Your task to perform on an android device: When is my next appointment? Image 0: 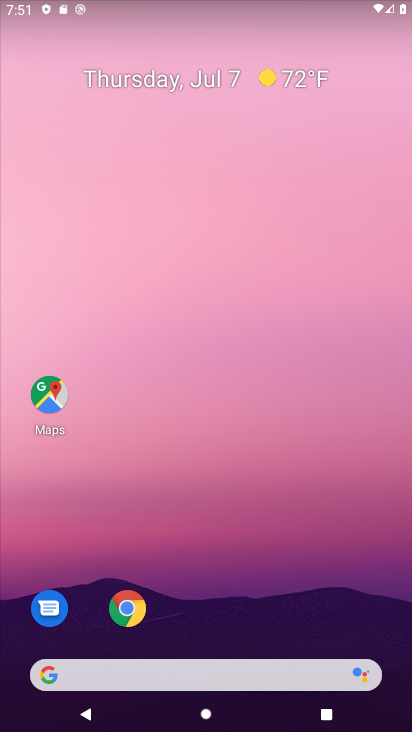
Step 0: drag from (383, 710) to (352, 196)
Your task to perform on an android device: When is my next appointment? Image 1: 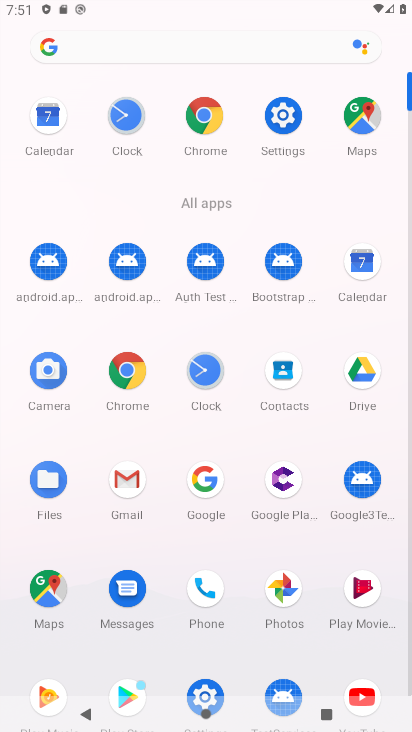
Step 1: click (377, 268)
Your task to perform on an android device: When is my next appointment? Image 2: 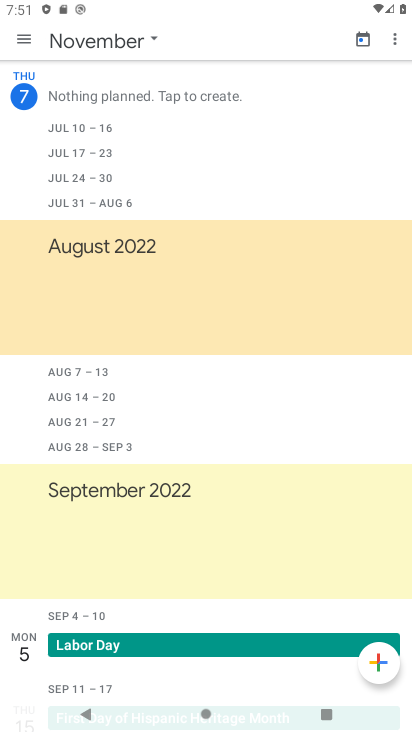
Step 2: click (23, 37)
Your task to perform on an android device: When is my next appointment? Image 3: 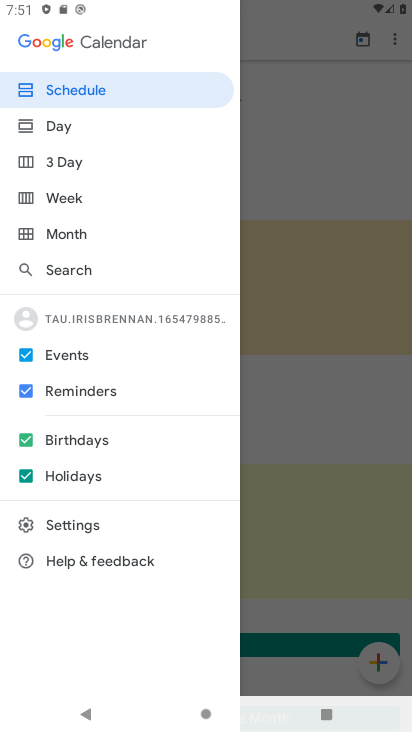
Step 3: click (25, 471)
Your task to perform on an android device: When is my next appointment? Image 4: 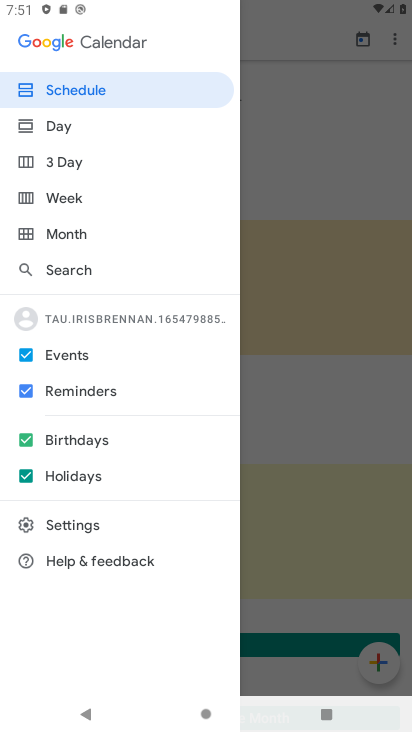
Step 4: click (26, 442)
Your task to perform on an android device: When is my next appointment? Image 5: 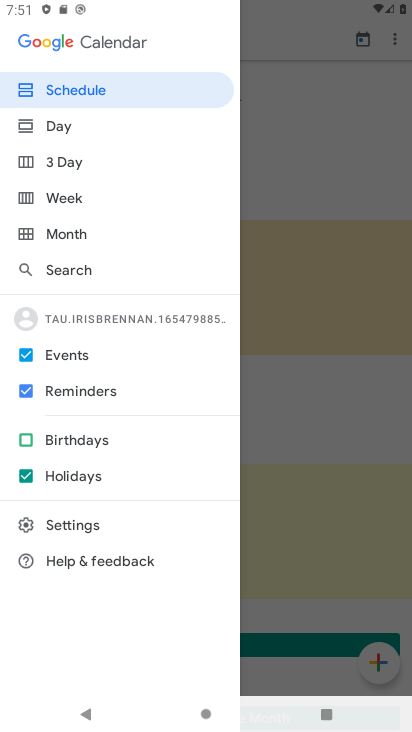
Step 5: click (30, 391)
Your task to perform on an android device: When is my next appointment? Image 6: 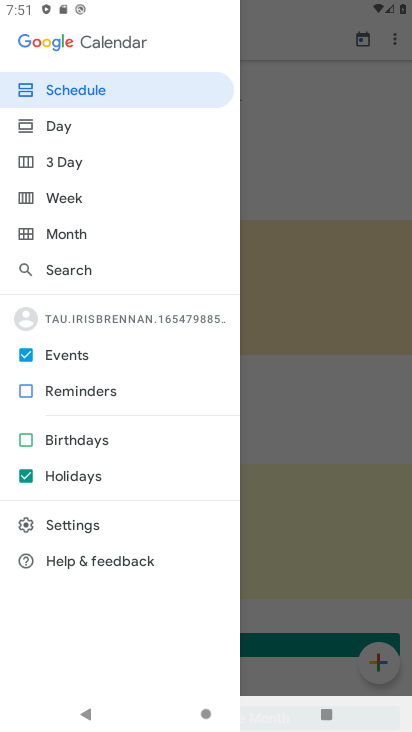
Step 6: click (25, 478)
Your task to perform on an android device: When is my next appointment? Image 7: 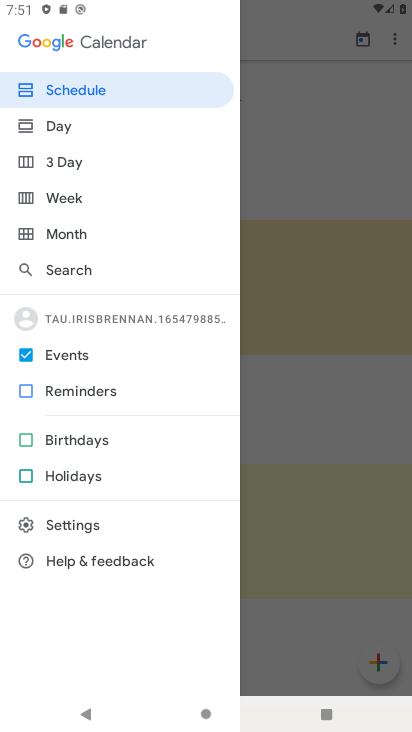
Step 7: click (86, 88)
Your task to perform on an android device: When is my next appointment? Image 8: 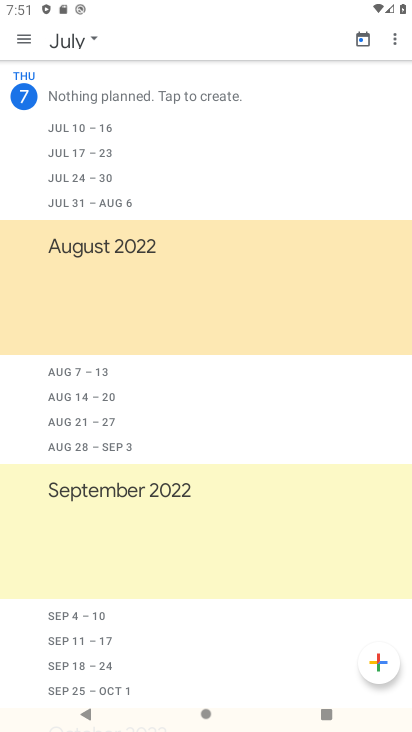
Step 8: task complete